Your task to perform on an android device: Go to accessibility settings Image 0: 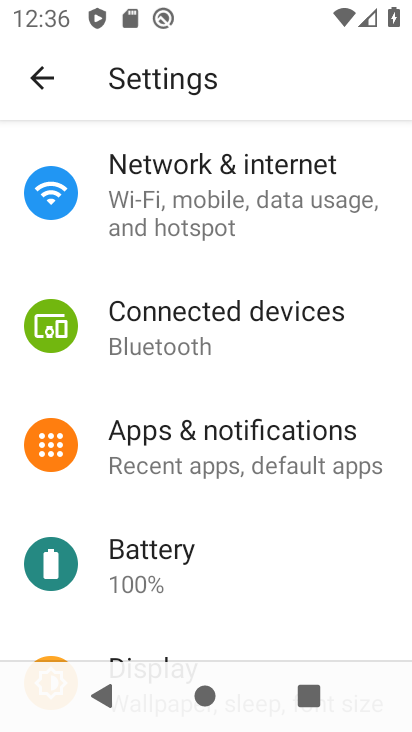
Step 0: drag from (206, 618) to (255, 190)
Your task to perform on an android device: Go to accessibility settings Image 1: 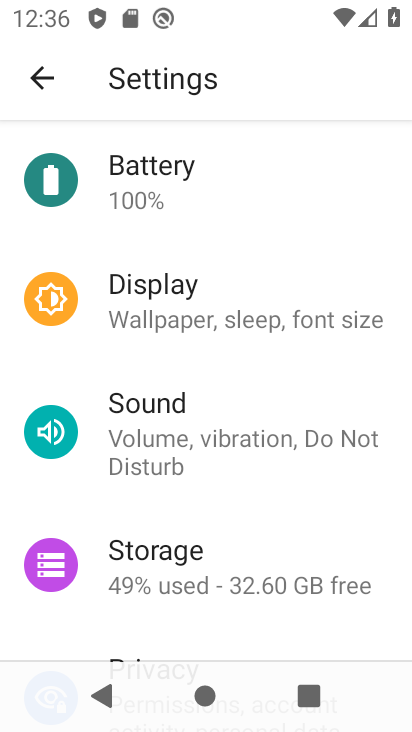
Step 1: drag from (198, 583) to (191, 291)
Your task to perform on an android device: Go to accessibility settings Image 2: 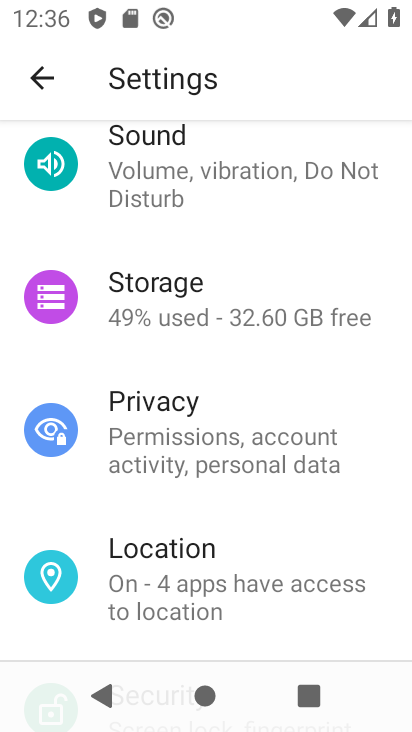
Step 2: drag from (149, 611) to (148, 292)
Your task to perform on an android device: Go to accessibility settings Image 3: 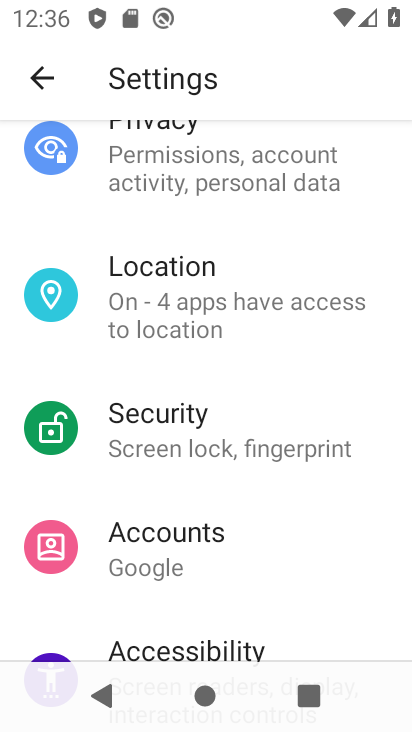
Step 3: drag from (157, 625) to (176, 307)
Your task to perform on an android device: Go to accessibility settings Image 4: 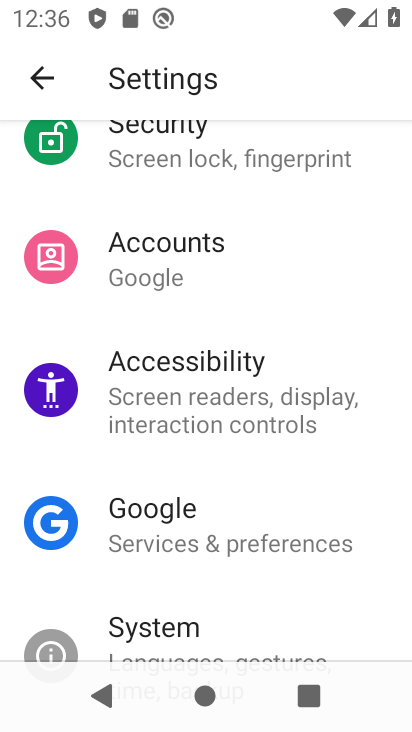
Step 4: click (181, 382)
Your task to perform on an android device: Go to accessibility settings Image 5: 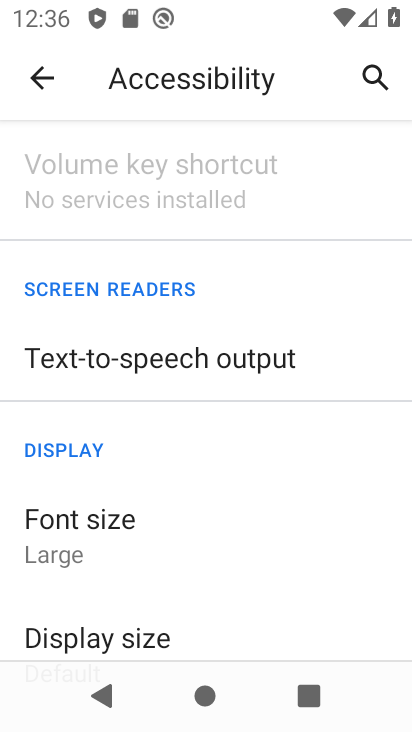
Step 5: task complete